Your task to perform on an android device: Open Google Maps and go to "Timeline" Image 0: 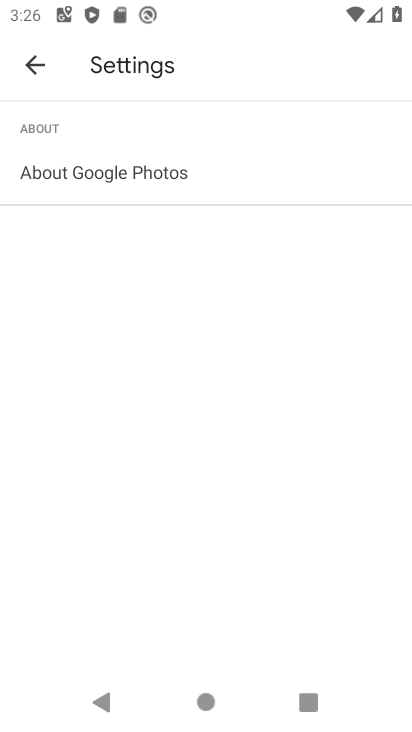
Step 0: press back button
Your task to perform on an android device: Open Google Maps and go to "Timeline" Image 1: 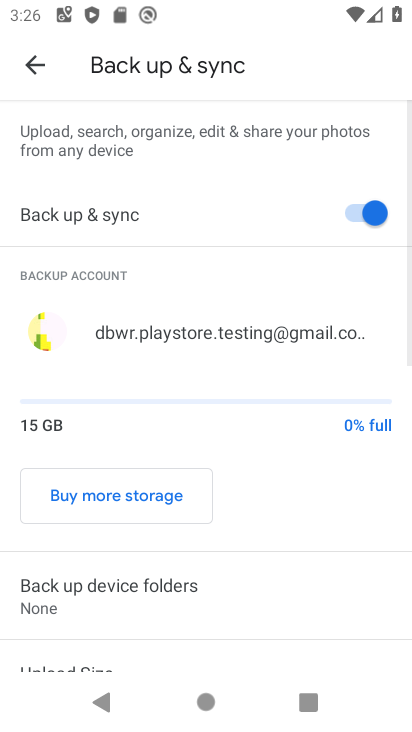
Step 1: press back button
Your task to perform on an android device: Open Google Maps and go to "Timeline" Image 2: 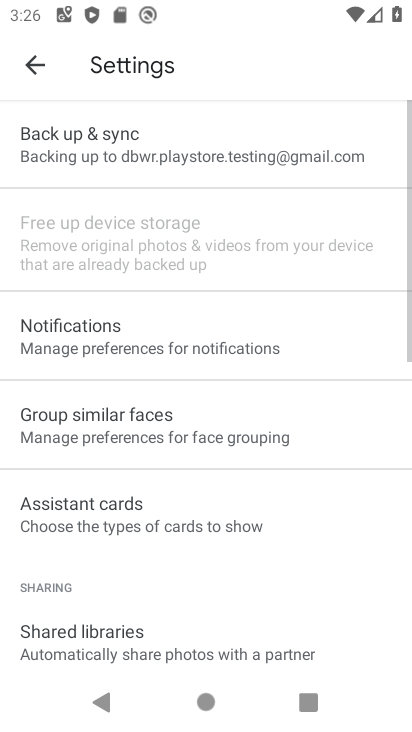
Step 2: press back button
Your task to perform on an android device: Open Google Maps and go to "Timeline" Image 3: 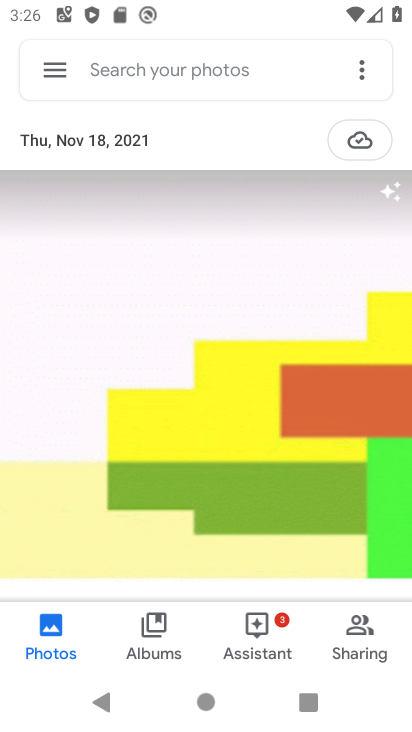
Step 3: click (49, 74)
Your task to perform on an android device: Open Google Maps and go to "Timeline" Image 4: 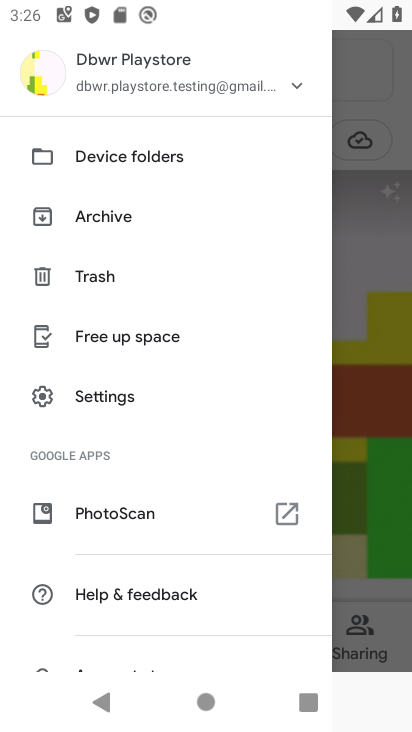
Step 4: press home button
Your task to perform on an android device: Open Google Maps and go to "Timeline" Image 5: 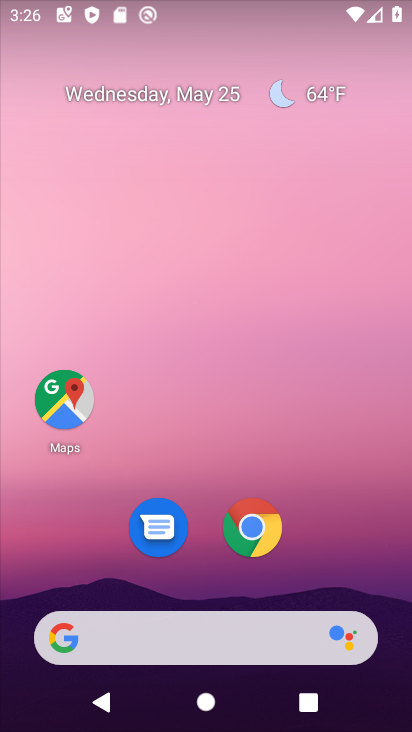
Step 5: click (72, 393)
Your task to perform on an android device: Open Google Maps and go to "Timeline" Image 6: 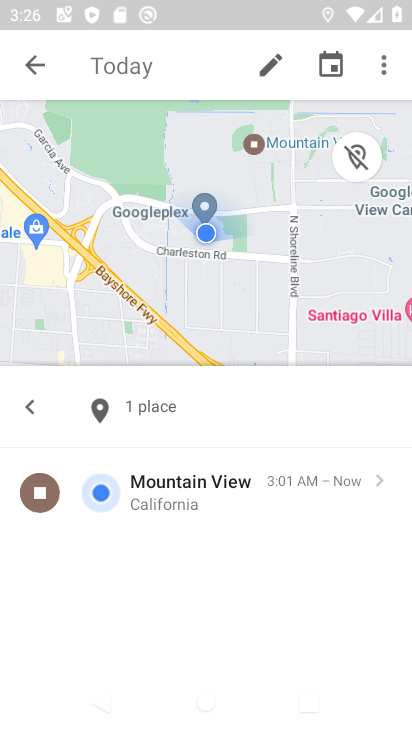
Step 6: click (32, 57)
Your task to perform on an android device: Open Google Maps and go to "Timeline" Image 7: 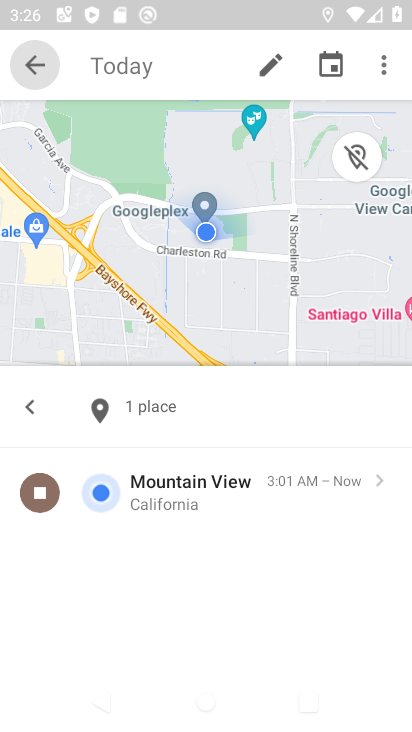
Step 7: task complete